Your task to perform on an android device: Show me recent news Image 0: 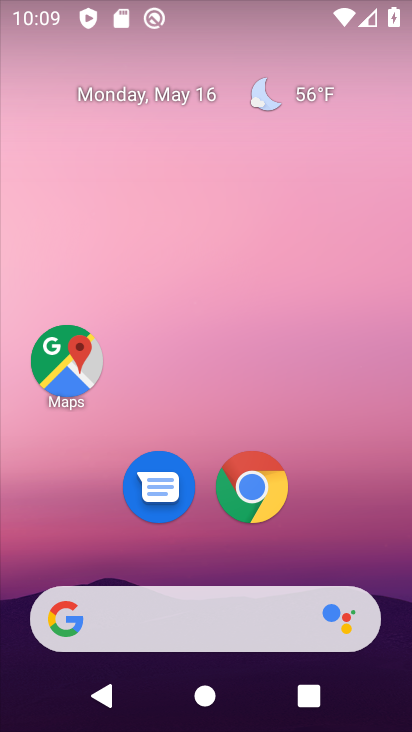
Step 0: drag from (268, 541) to (329, 42)
Your task to perform on an android device: Show me recent news Image 1: 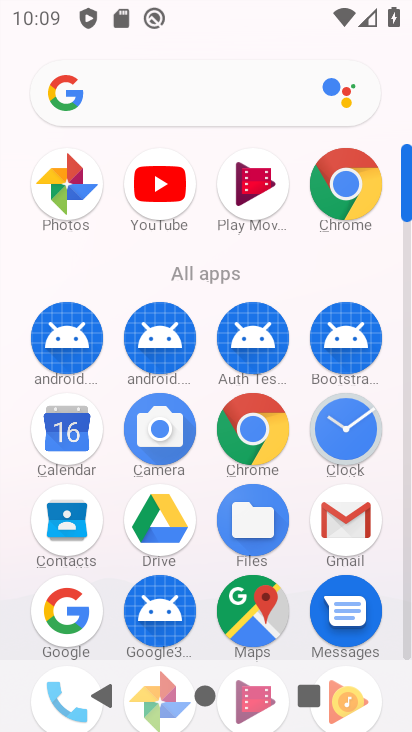
Step 1: click (71, 603)
Your task to perform on an android device: Show me recent news Image 2: 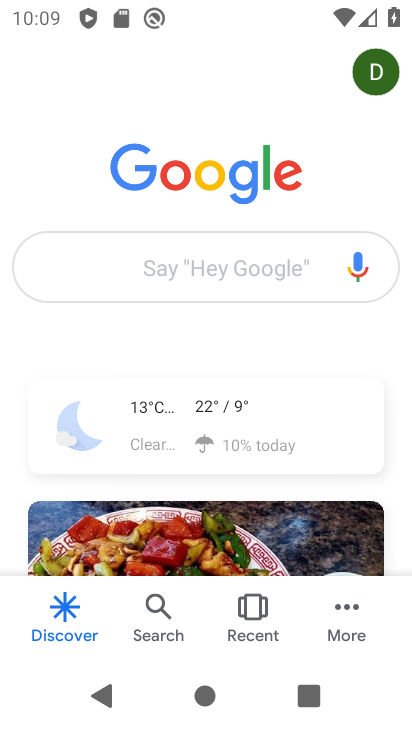
Step 2: click (192, 275)
Your task to perform on an android device: Show me recent news Image 3: 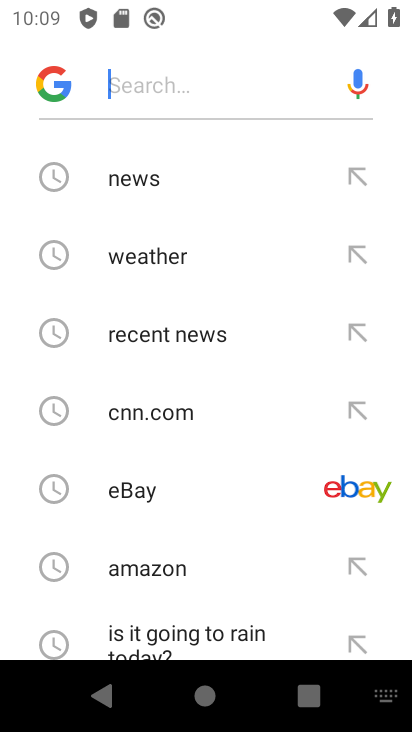
Step 3: click (189, 331)
Your task to perform on an android device: Show me recent news Image 4: 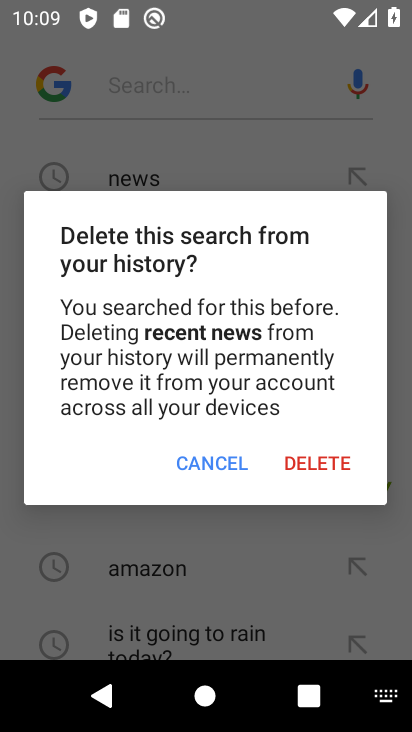
Step 4: click (203, 463)
Your task to perform on an android device: Show me recent news Image 5: 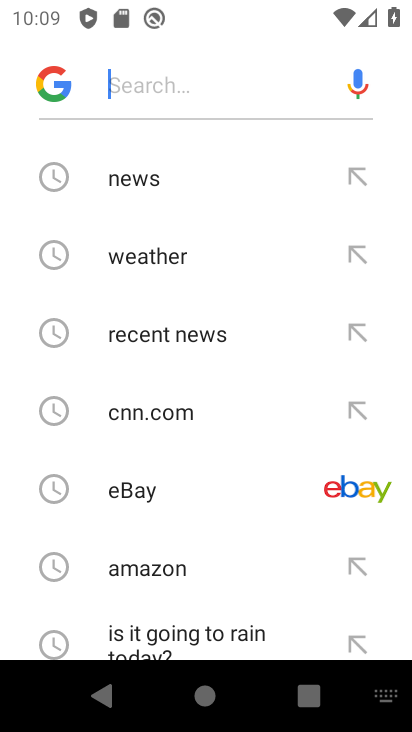
Step 5: click (181, 356)
Your task to perform on an android device: Show me recent news Image 6: 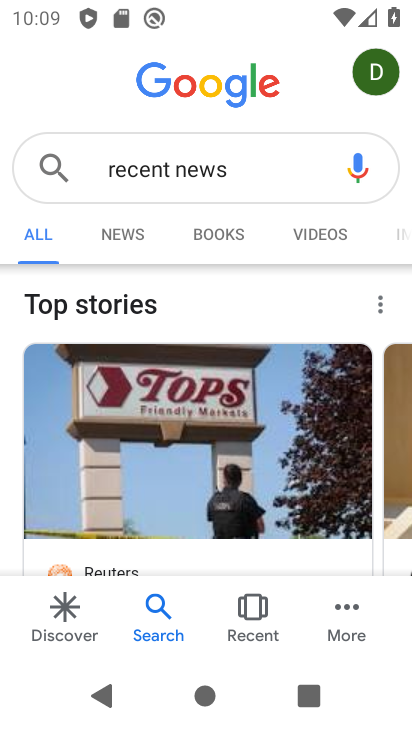
Step 6: task complete